Your task to perform on an android device: Open CNN.com Image 0: 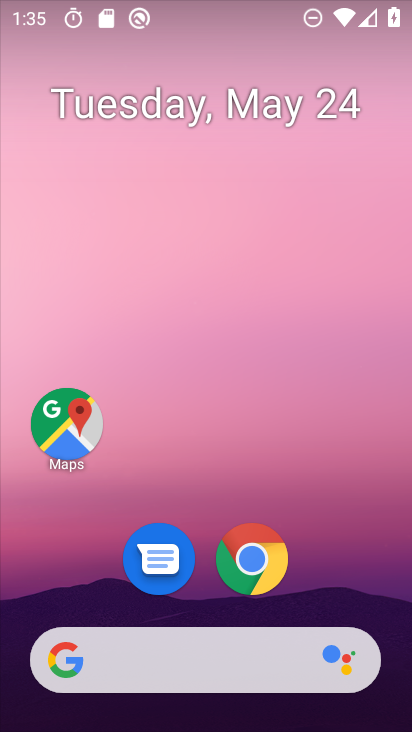
Step 0: click (238, 561)
Your task to perform on an android device: Open CNN.com Image 1: 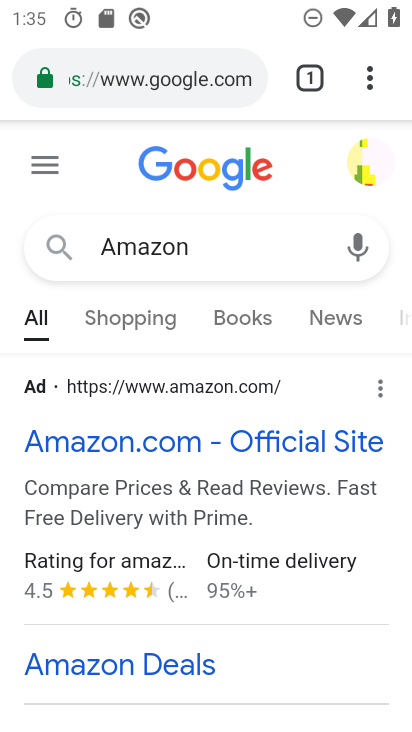
Step 1: click (250, 83)
Your task to perform on an android device: Open CNN.com Image 2: 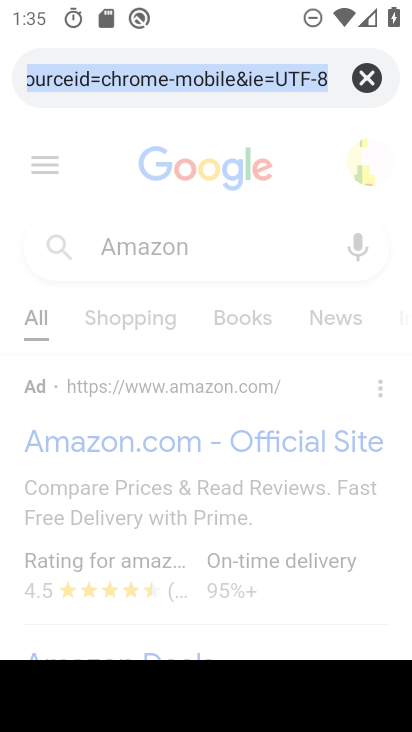
Step 2: click (377, 70)
Your task to perform on an android device: Open CNN.com Image 3: 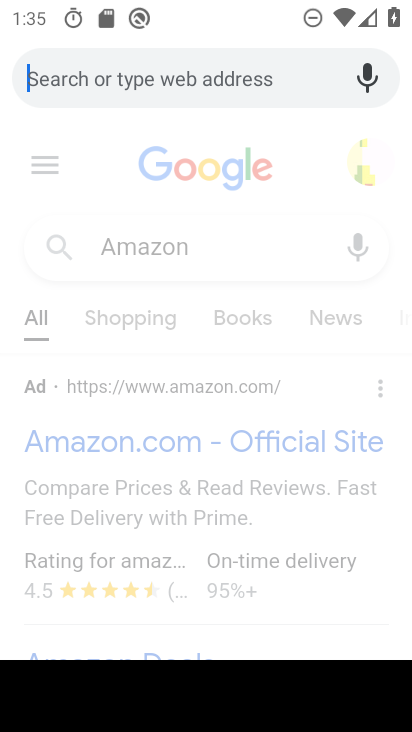
Step 3: type "CNN.com"
Your task to perform on an android device: Open CNN.com Image 4: 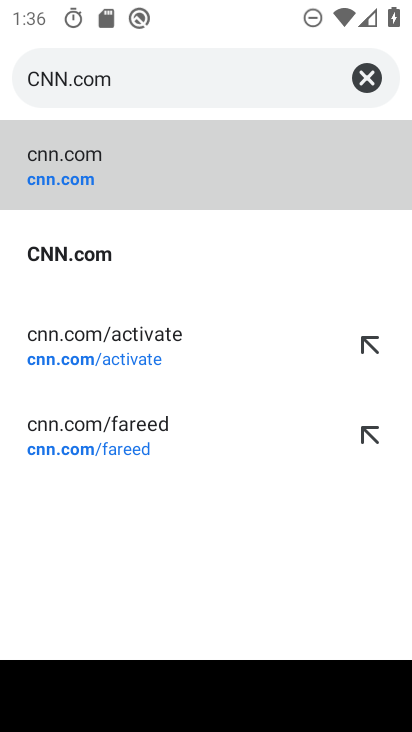
Step 4: click (81, 248)
Your task to perform on an android device: Open CNN.com Image 5: 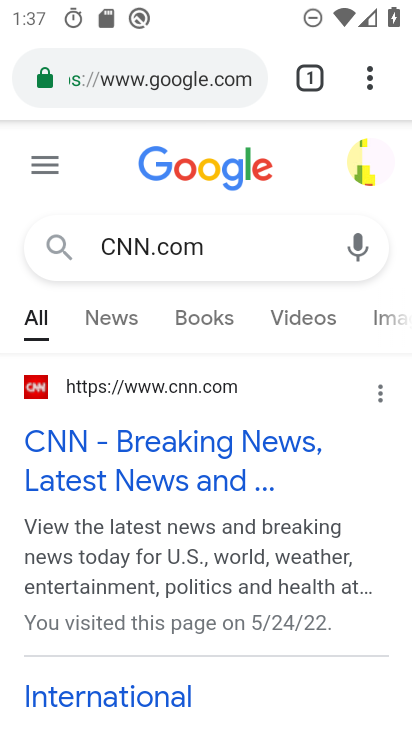
Step 5: task complete